Your task to perform on an android device: View the shopping cart on amazon. Add "duracell triple a" to the cart on amazon, then select checkout. Image 0: 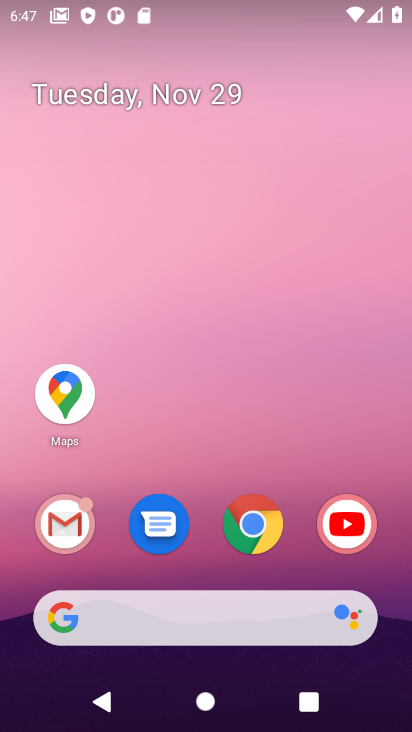
Step 0: click (252, 535)
Your task to perform on an android device: View the shopping cart on amazon. Add "duracell triple a" to the cart on amazon, then select checkout. Image 1: 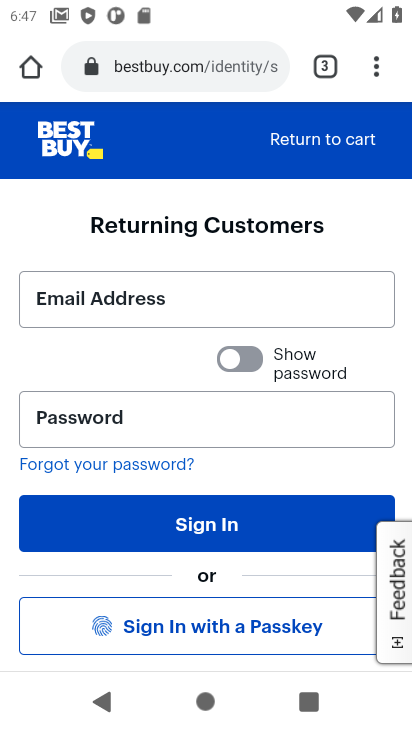
Step 1: click (153, 74)
Your task to perform on an android device: View the shopping cart on amazon. Add "duracell triple a" to the cart on amazon, then select checkout. Image 2: 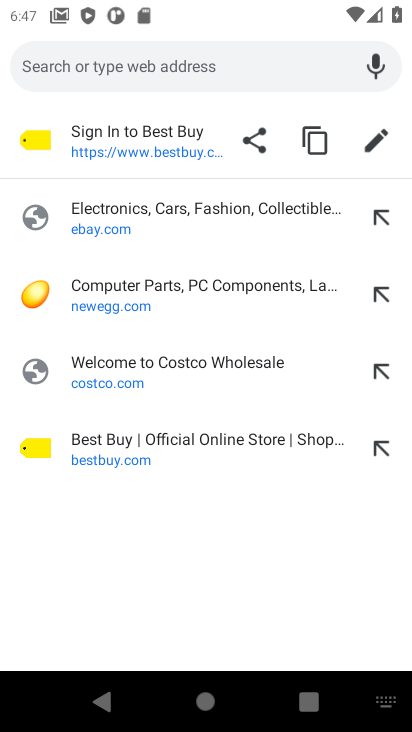
Step 2: type "amazon.com"
Your task to perform on an android device: View the shopping cart on amazon. Add "duracell triple a" to the cart on amazon, then select checkout. Image 3: 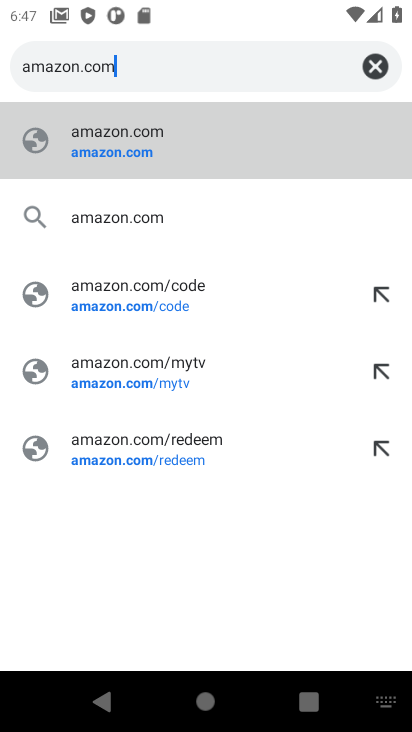
Step 3: click (126, 148)
Your task to perform on an android device: View the shopping cart on amazon. Add "duracell triple a" to the cart on amazon, then select checkout. Image 4: 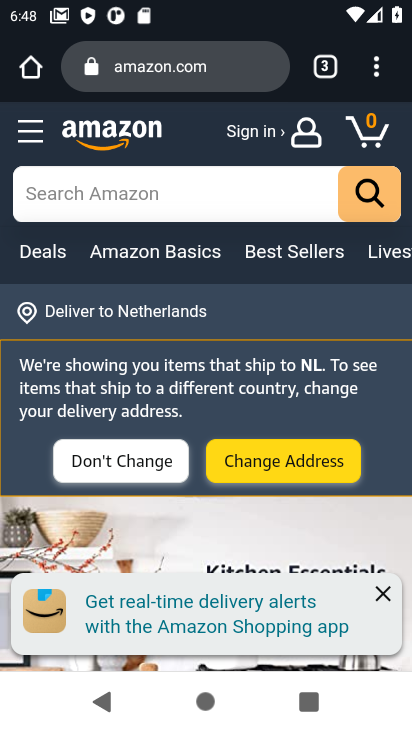
Step 4: click (364, 127)
Your task to perform on an android device: View the shopping cart on amazon. Add "duracell triple a" to the cart on amazon, then select checkout. Image 5: 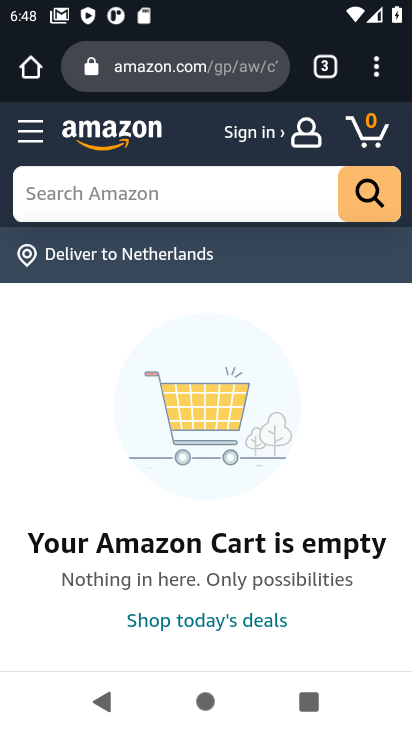
Step 5: click (117, 196)
Your task to perform on an android device: View the shopping cart on amazon. Add "duracell triple a" to the cart on amazon, then select checkout. Image 6: 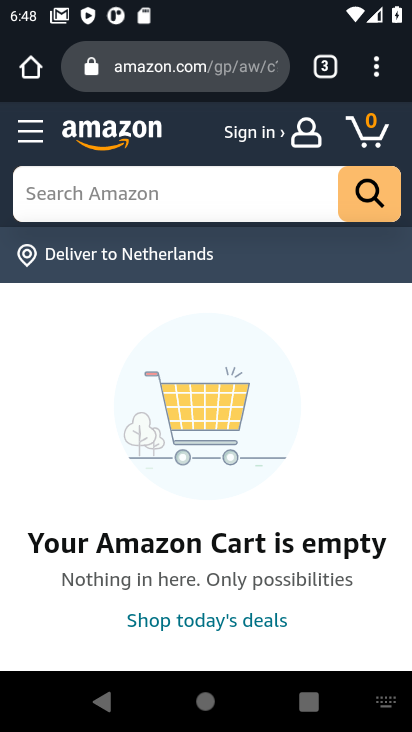
Step 6: type "duracell triple a"
Your task to perform on an android device: View the shopping cart on amazon. Add "duracell triple a" to the cart on amazon, then select checkout. Image 7: 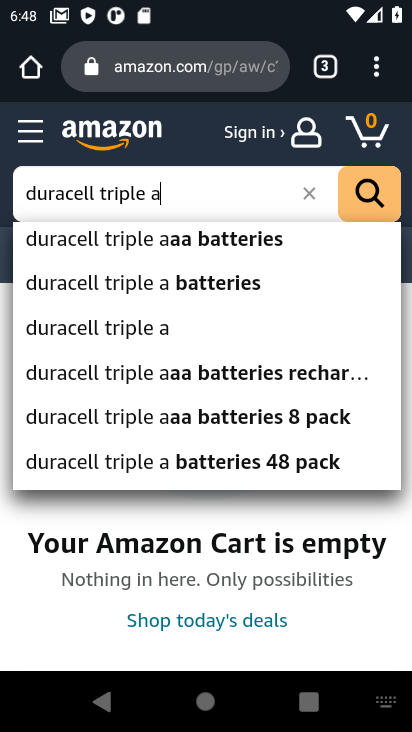
Step 7: click (199, 239)
Your task to perform on an android device: View the shopping cart on amazon. Add "duracell triple a" to the cart on amazon, then select checkout. Image 8: 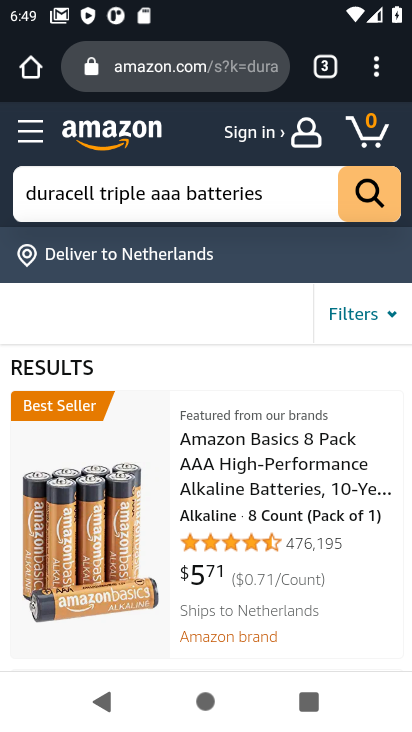
Step 8: drag from (146, 527) to (159, 358)
Your task to perform on an android device: View the shopping cart on amazon. Add "duracell triple a" to the cart on amazon, then select checkout. Image 9: 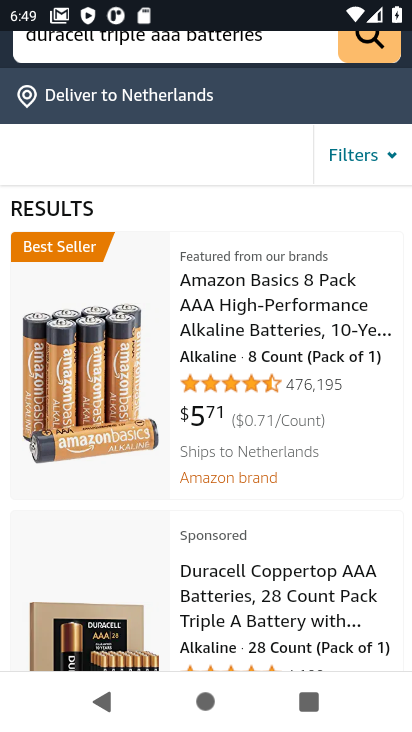
Step 9: drag from (138, 566) to (151, 356)
Your task to perform on an android device: View the shopping cart on amazon. Add "duracell triple a" to the cart on amazon, then select checkout. Image 10: 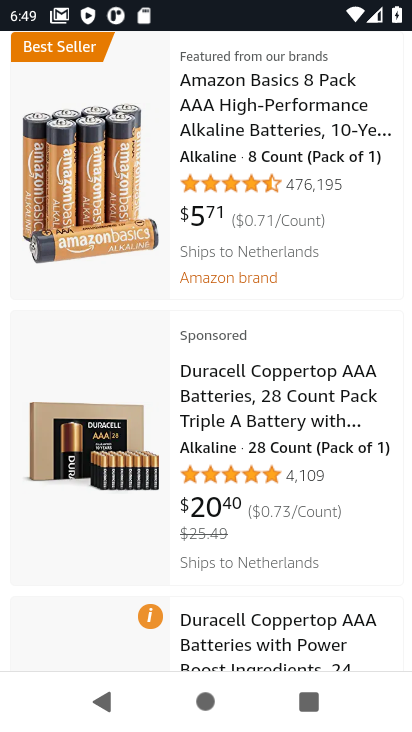
Step 10: click (275, 427)
Your task to perform on an android device: View the shopping cart on amazon. Add "duracell triple a" to the cart on amazon, then select checkout. Image 11: 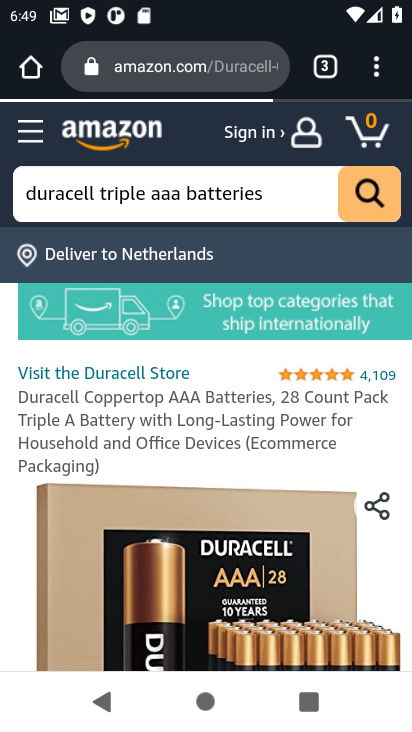
Step 11: drag from (184, 544) to (201, 251)
Your task to perform on an android device: View the shopping cart on amazon. Add "duracell triple a" to the cart on amazon, then select checkout. Image 12: 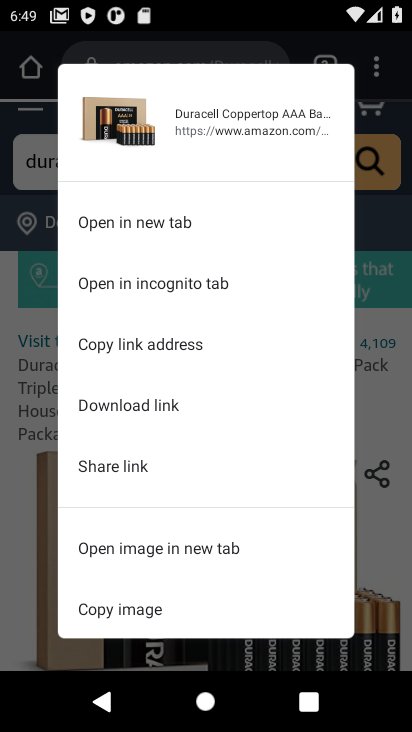
Step 12: click (395, 537)
Your task to perform on an android device: View the shopping cart on amazon. Add "duracell triple a" to the cart on amazon, then select checkout. Image 13: 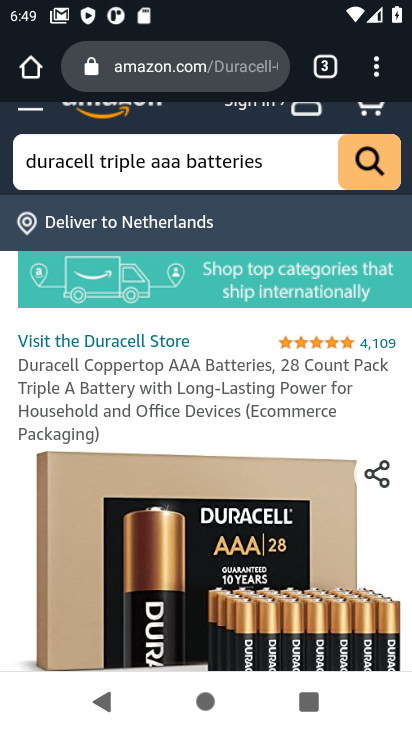
Step 13: drag from (271, 586) to (242, 153)
Your task to perform on an android device: View the shopping cart on amazon. Add "duracell triple a" to the cart on amazon, then select checkout. Image 14: 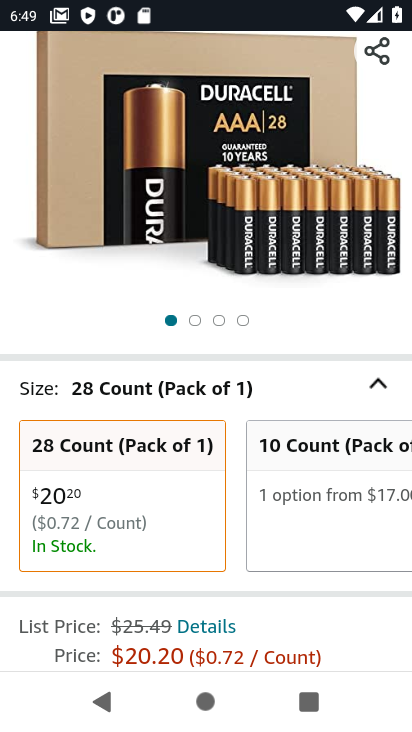
Step 14: drag from (191, 482) to (172, 171)
Your task to perform on an android device: View the shopping cart on amazon. Add "duracell triple a" to the cart on amazon, then select checkout. Image 15: 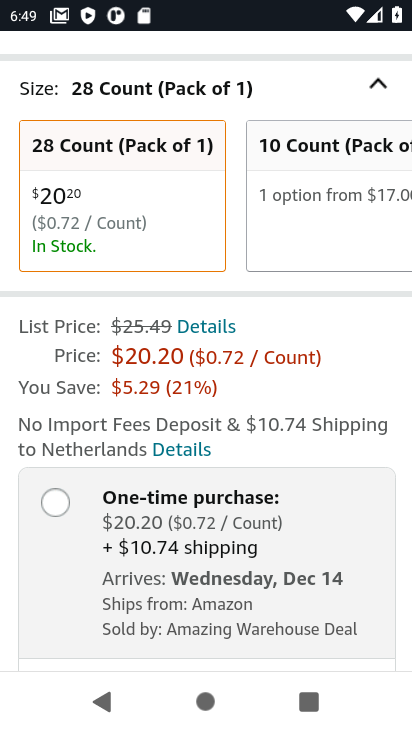
Step 15: drag from (229, 500) to (209, 196)
Your task to perform on an android device: View the shopping cart on amazon. Add "duracell triple a" to the cart on amazon, then select checkout. Image 16: 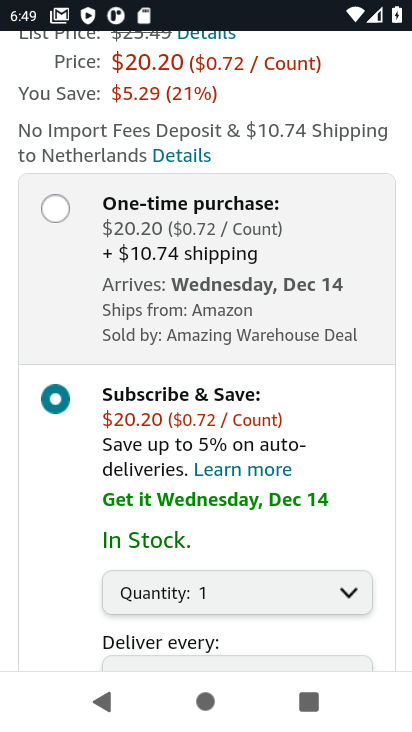
Step 16: click (53, 211)
Your task to perform on an android device: View the shopping cart on amazon. Add "duracell triple a" to the cart on amazon, then select checkout. Image 17: 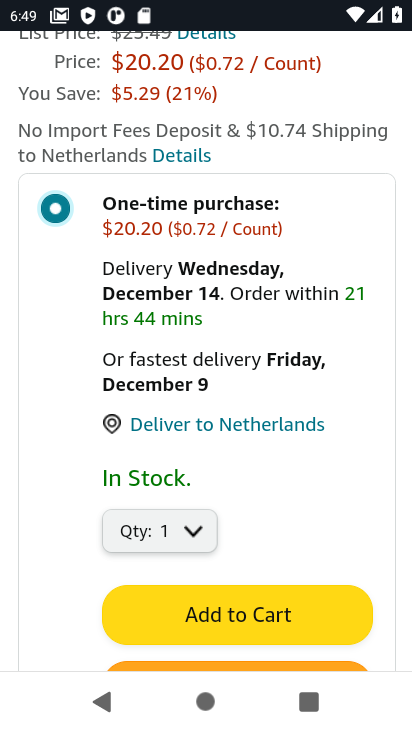
Step 17: click (233, 619)
Your task to perform on an android device: View the shopping cart on amazon. Add "duracell triple a" to the cart on amazon, then select checkout. Image 18: 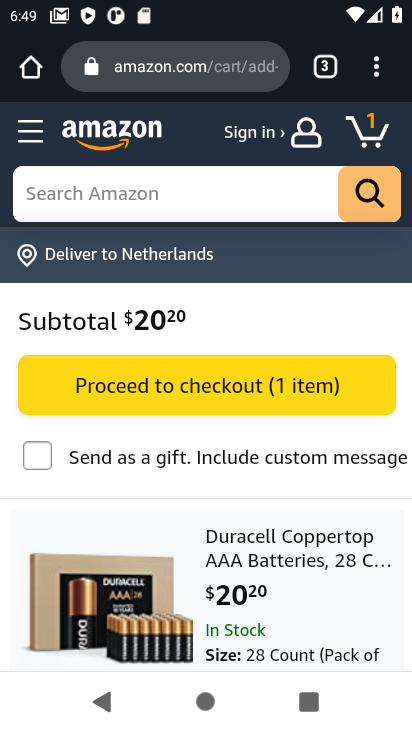
Step 18: click (154, 387)
Your task to perform on an android device: View the shopping cart on amazon. Add "duracell triple a" to the cart on amazon, then select checkout. Image 19: 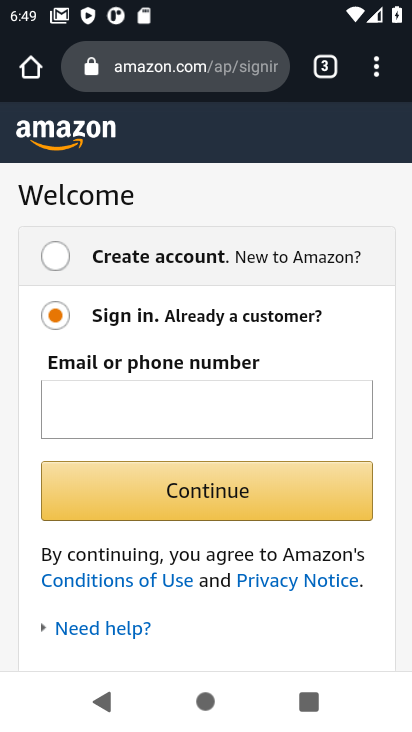
Step 19: task complete